Your task to perform on an android device: turn off notifications in google photos Image 0: 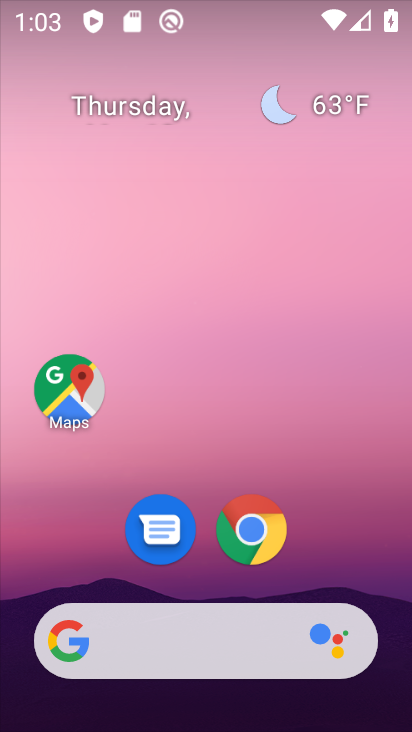
Step 0: drag from (342, 536) to (293, 5)
Your task to perform on an android device: turn off notifications in google photos Image 1: 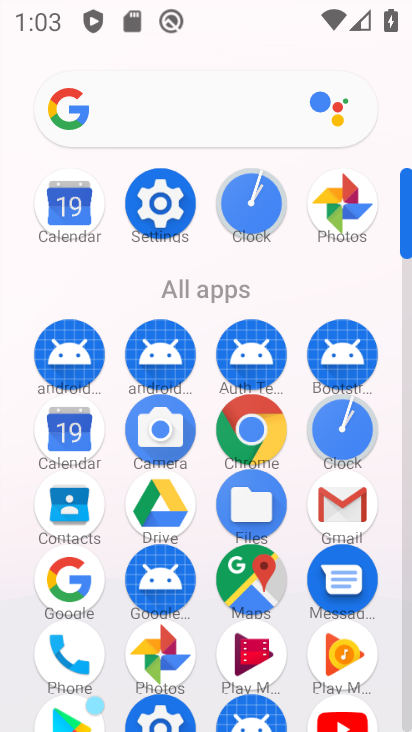
Step 1: click (343, 202)
Your task to perform on an android device: turn off notifications in google photos Image 2: 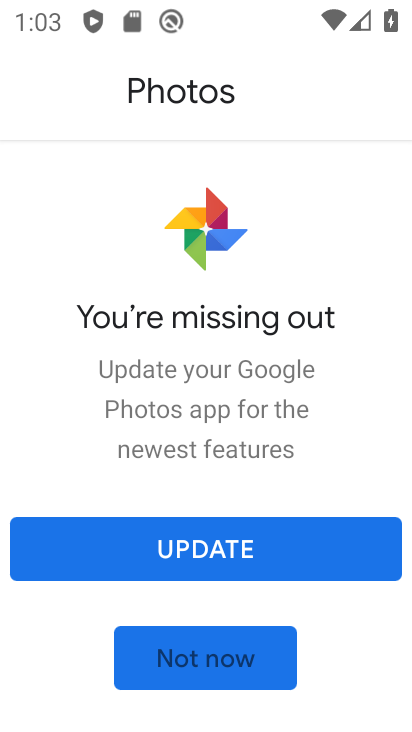
Step 2: click (195, 550)
Your task to perform on an android device: turn off notifications in google photos Image 3: 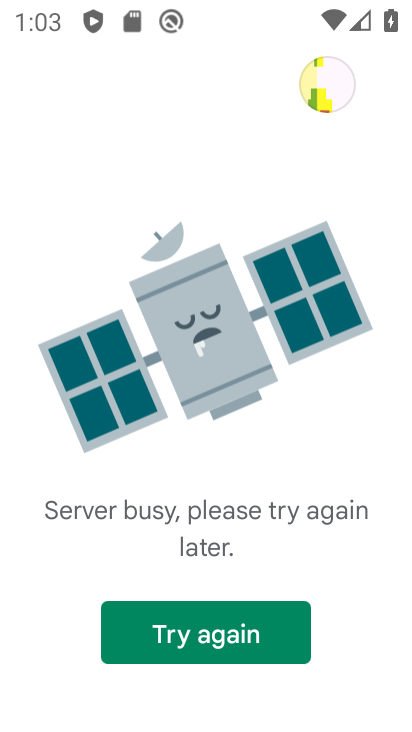
Step 3: click (229, 621)
Your task to perform on an android device: turn off notifications in google photos Image 4: 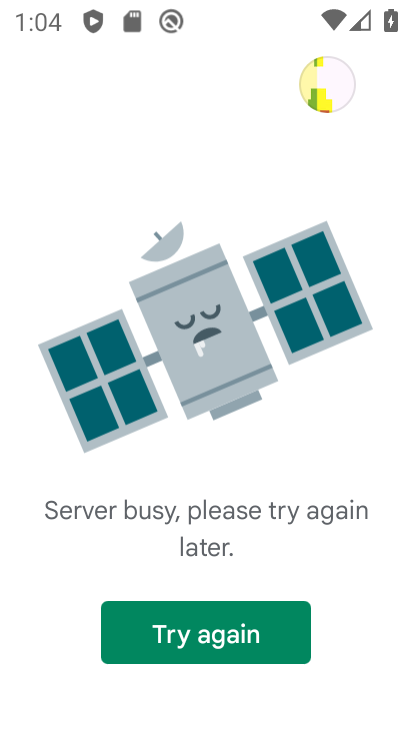
Step 4: click (229, 621)
Your task to perform on an android device: turn off notifications in google photos Image 5: 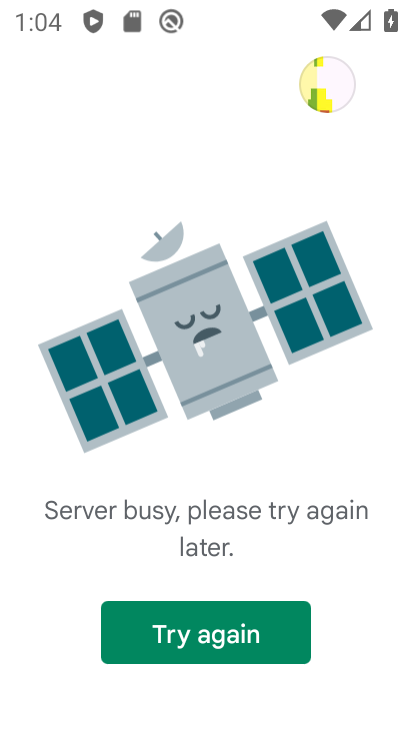
Step 5: click (237, 628)
Your task to perform on an android device: turn off notifications in google photos Image 6: 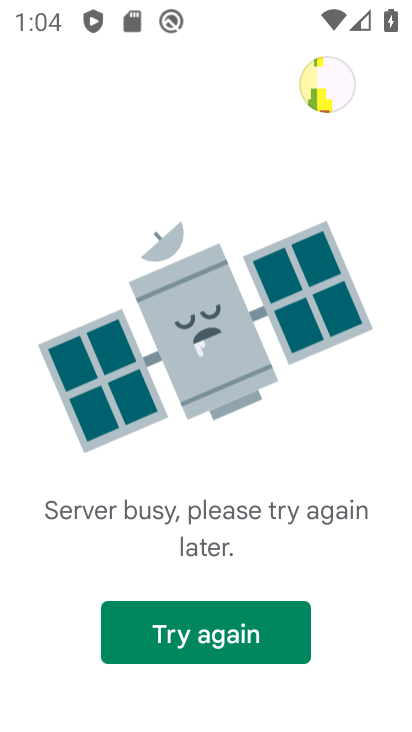
Step 6: task complete